Your task to perform on an android device: toggle location history Image 0: 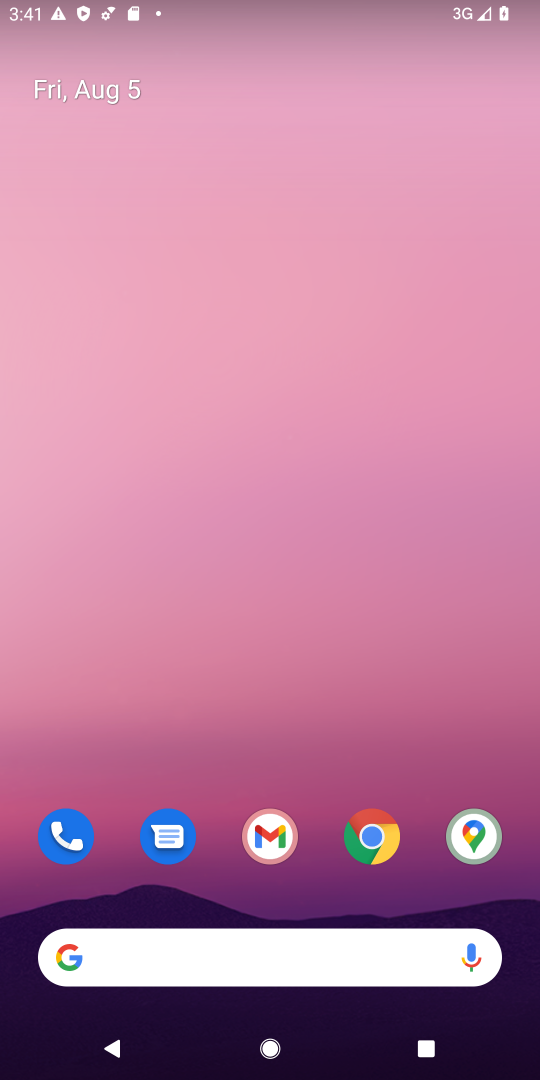
Step 0: drag from (298, 1032) to (286, 389)
Your task to perform on an android device: toggle location history Image 1: 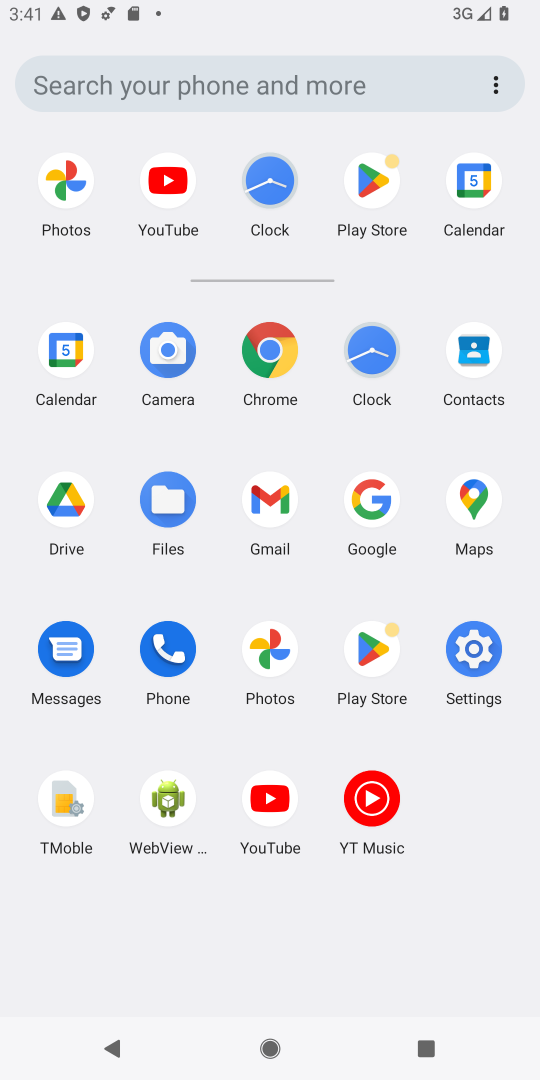
Step 1: click (480, 644)
Your task to perform on an android device: toggle location history Image 2: 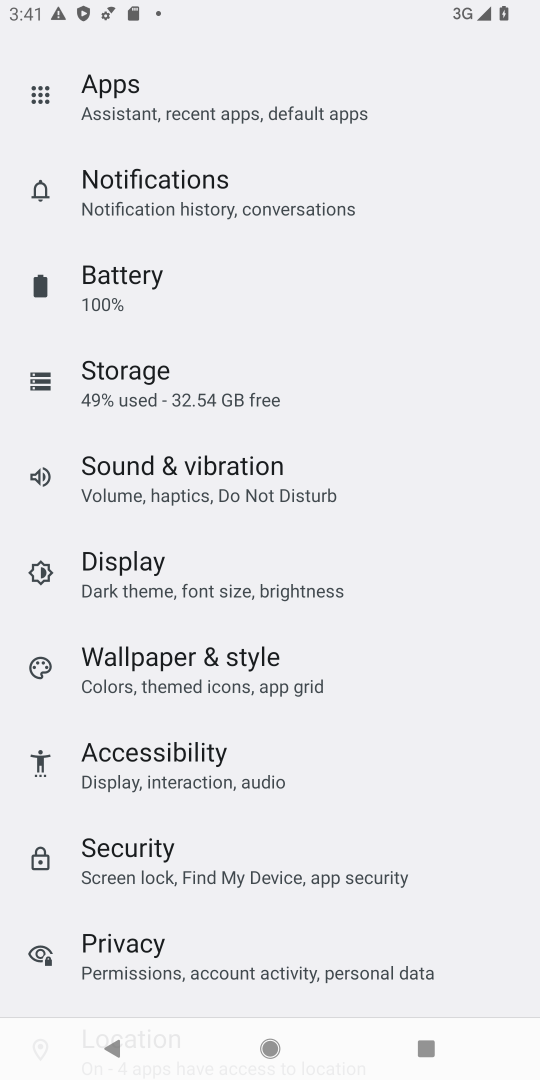
Step 2: drag from (262, 887) to (351, 291)
Your task to perform on an android device: toggle location history Image 3: 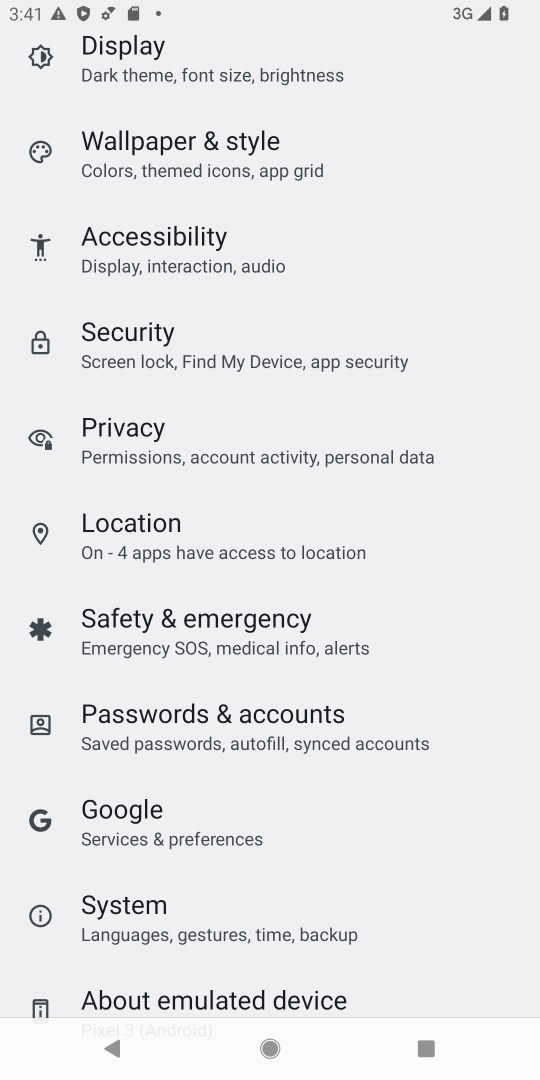
Step 3: click (124, 560)
Your task to perform on an android device: toggle location history Image 4: 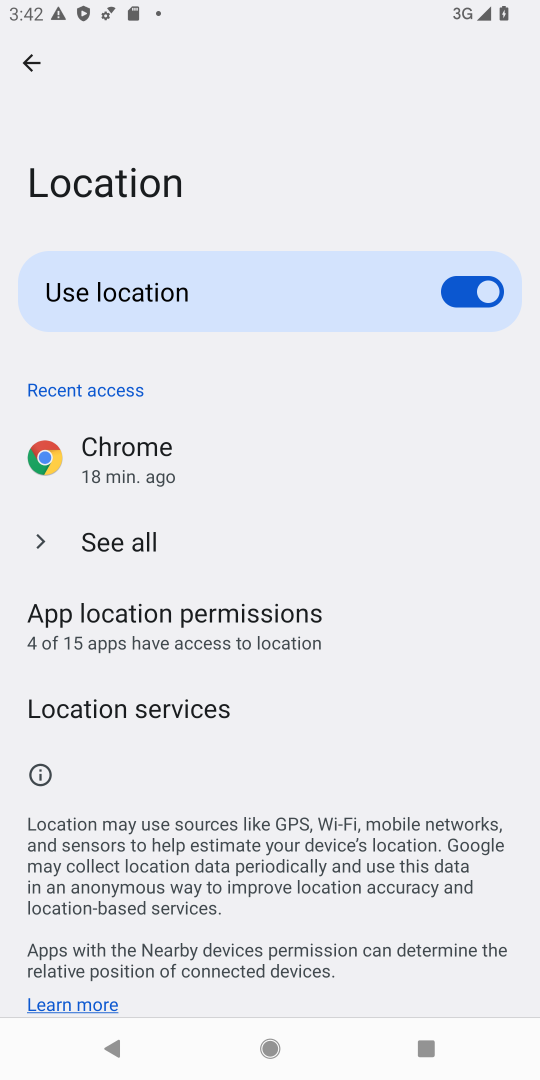
Step 4: drag from (265, 781) to (379, 283)
Your task to perform on an android device: toggle location history Image 5: 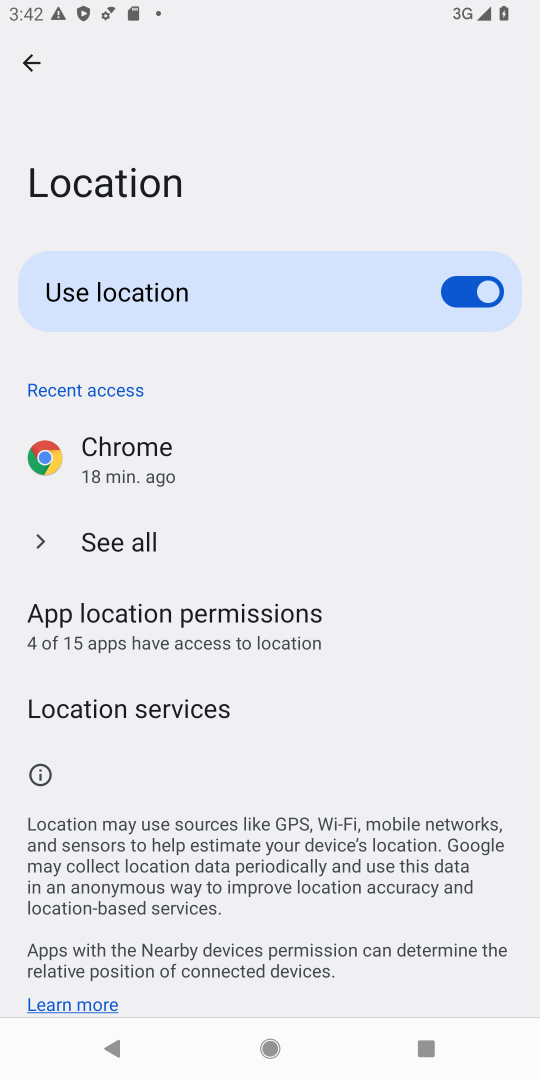
Step 5: drag from (196, 948) to (293, 393)
Your task to perform on an android device: toggle location history Image 6: 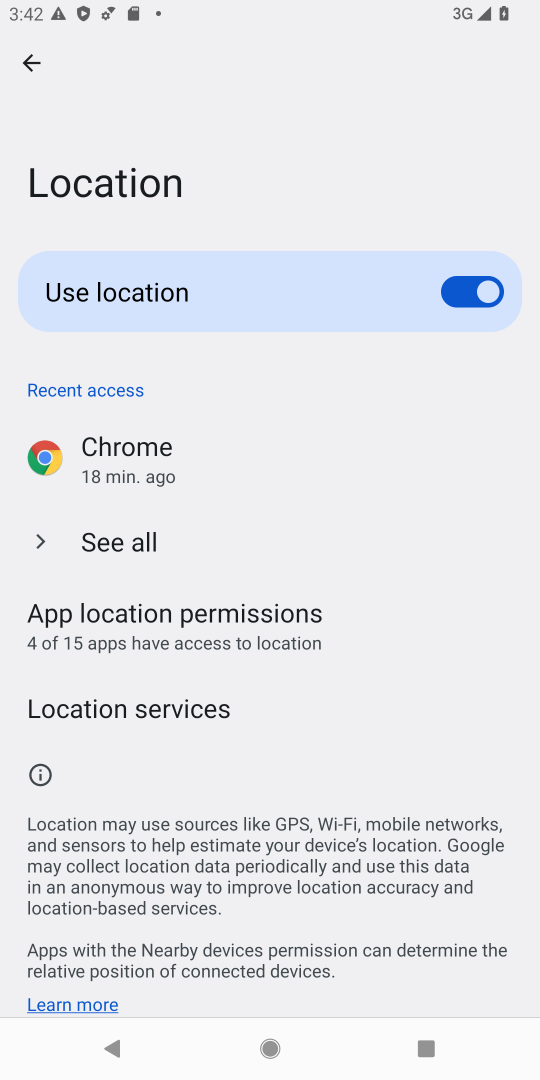
Step 6: click (139, 559)
Your task to perform on an android device: toggle location history Image 7: 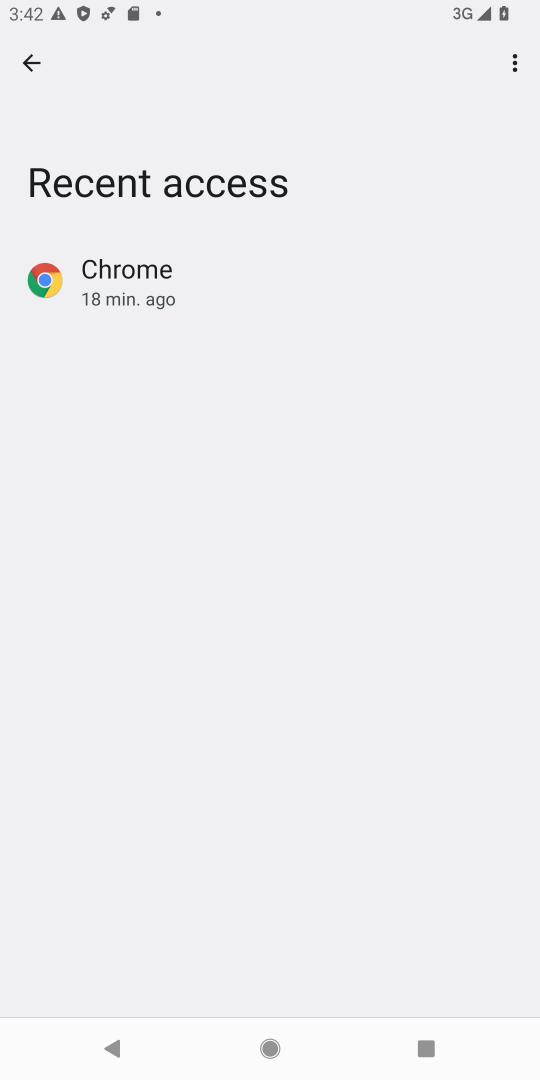
Step 7: click (27, 61)
Your task to perform on an android device: toggle location history Image 8: 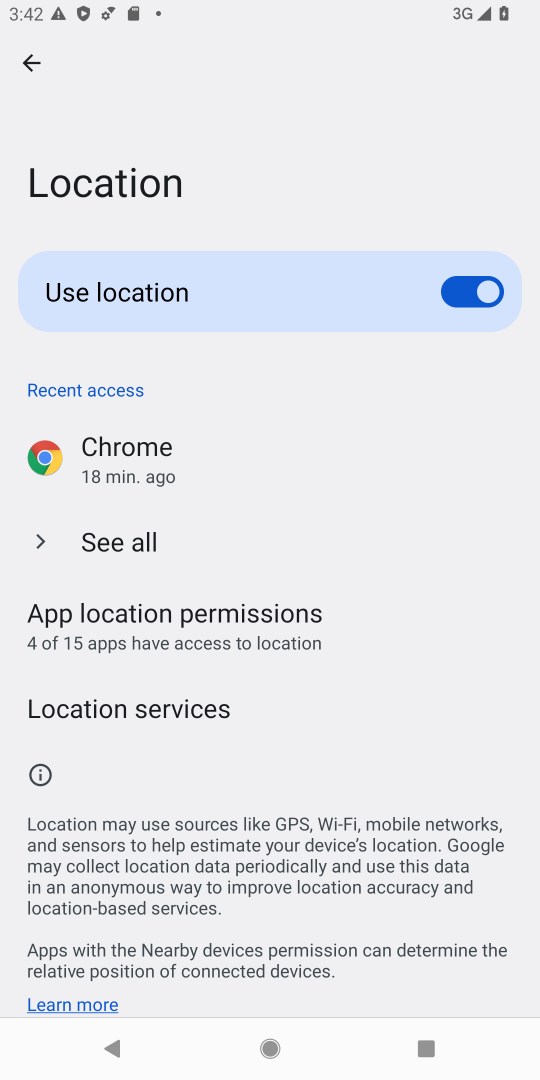
Step 8: click (157, 648)
Your task to perform on an android device: toggle location history Image 9: 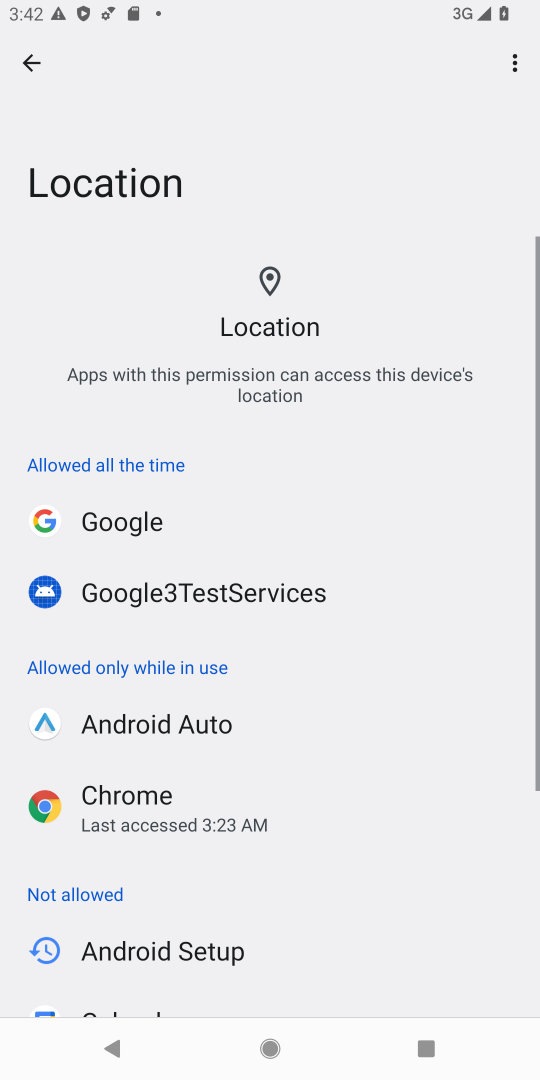
Step 9: drag from (277, 935) to (364, 144)
Your task to perform on an android device: toggle location history Image 10: 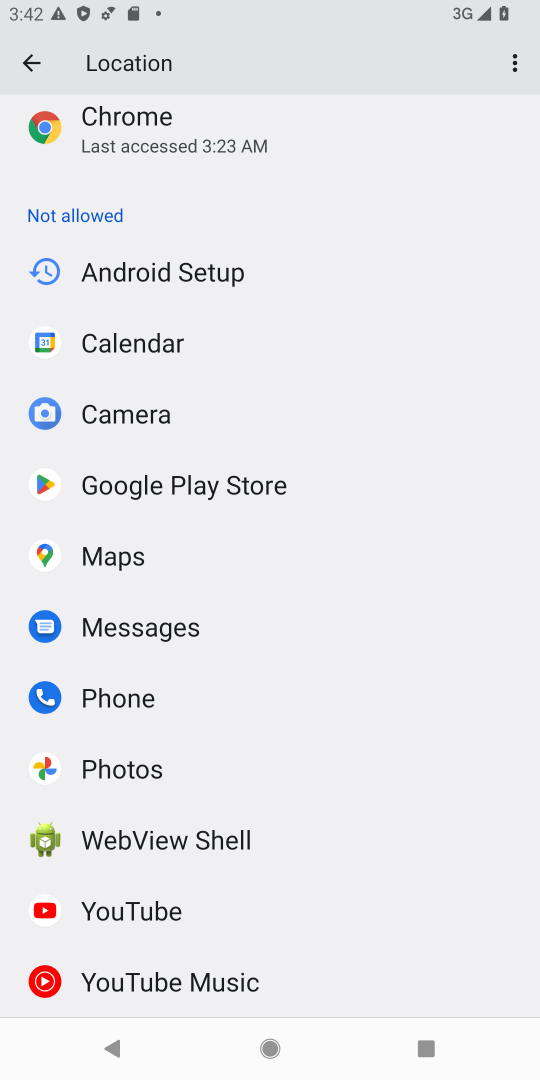
Step 10: click (11, 82)
Your task to perform on an android device: toggle location history Image 11: 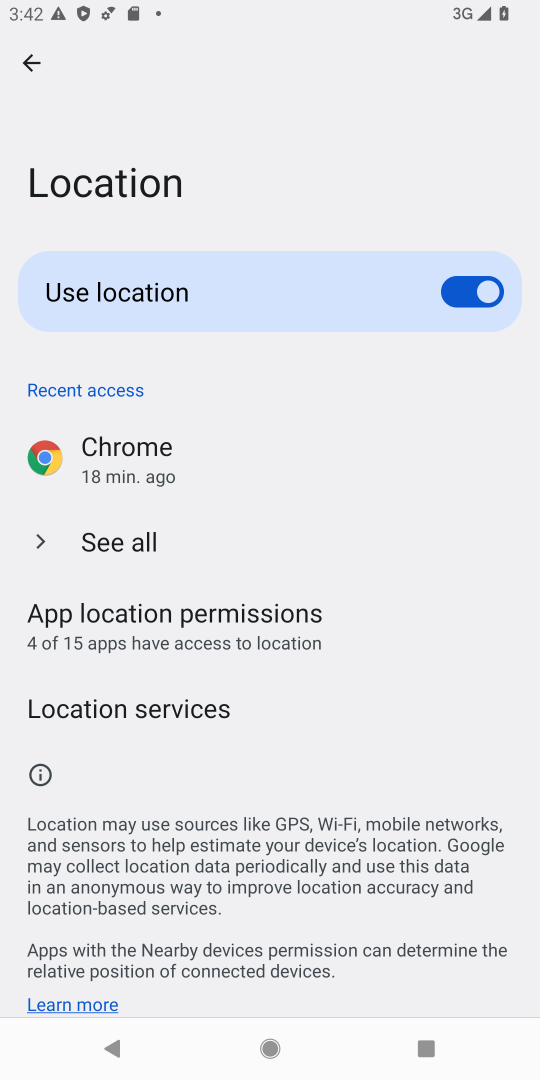
Step 11: task complete